Your task to perform on an android device: check battery use Image 0: 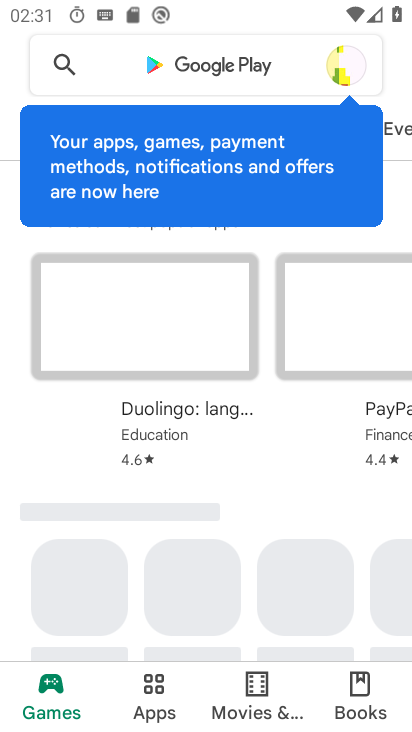
Step 0: press home button
Your task to perform on an android device: check battery use Image 1: 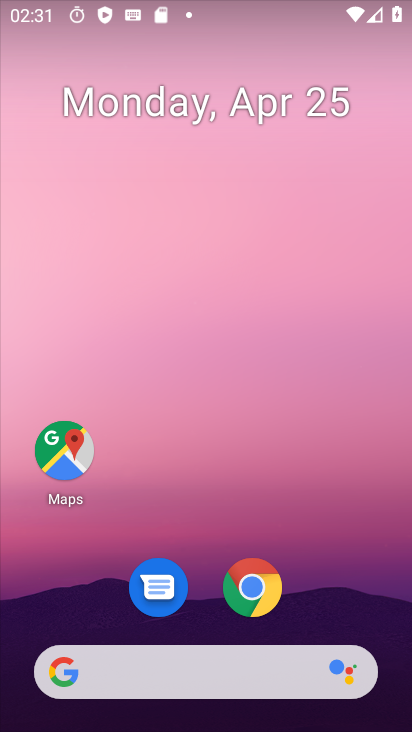
Step 1: drag from (351, 511) to (344, 97)
Your task to perform on an android device: check battery use Image 2: 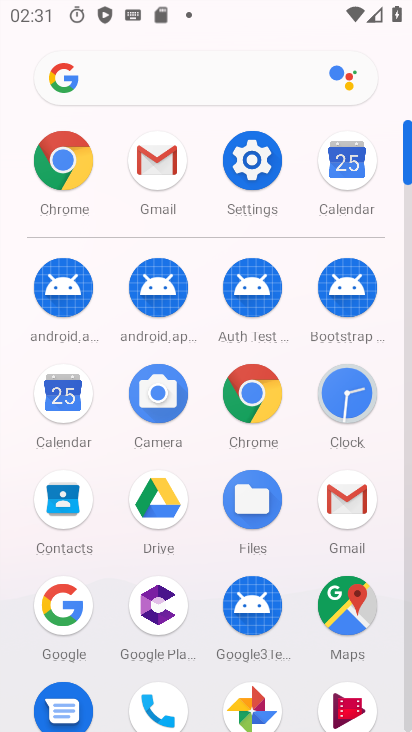
Step 2: click (247, 165)
Your task to perform on an android device: check battery use Image 3: 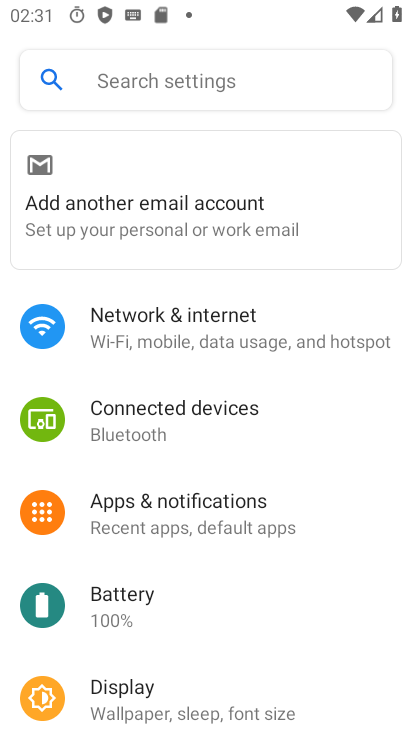
Step 3: drag from (291, 604) to (326, 272)
Your task to perform on an android device: check battery use Image 4: 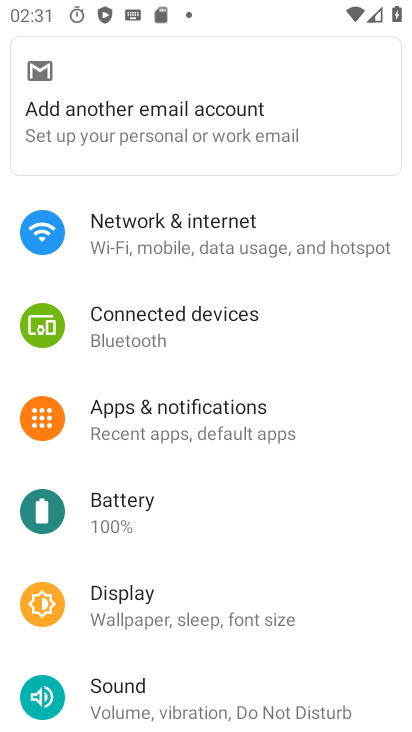
Step 4: click (139, 498)
Your task to perform on an android device: check battery use Image 5: 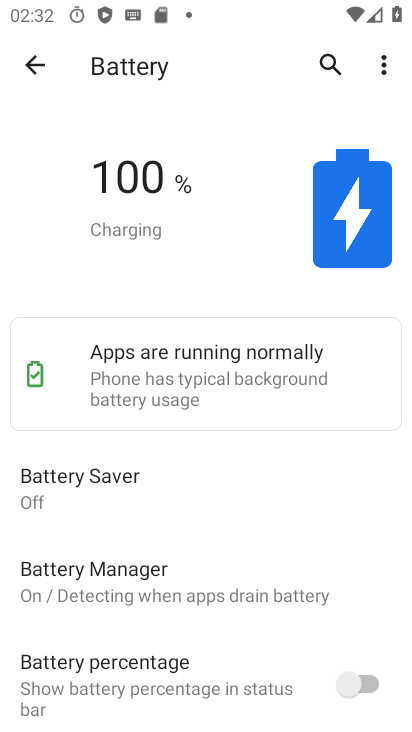
Step 5: task complete